Your task to perform on an android device: add a contact in the contacts app Image 0: 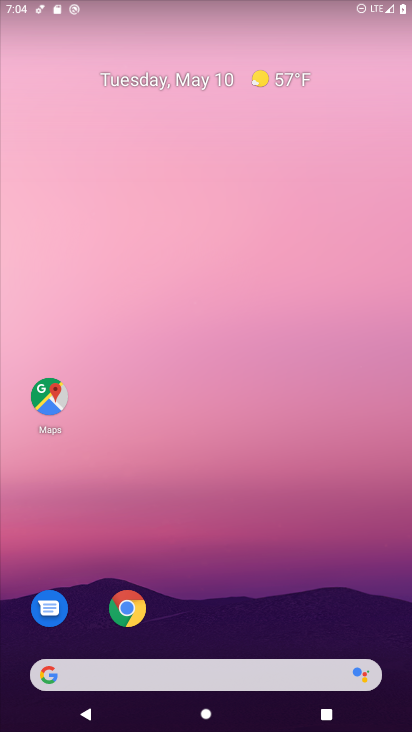
Step 0: drag from (324, 609) to (214, 77)
Your task to perform on an android device: add a contact in the contacts app Image 1: 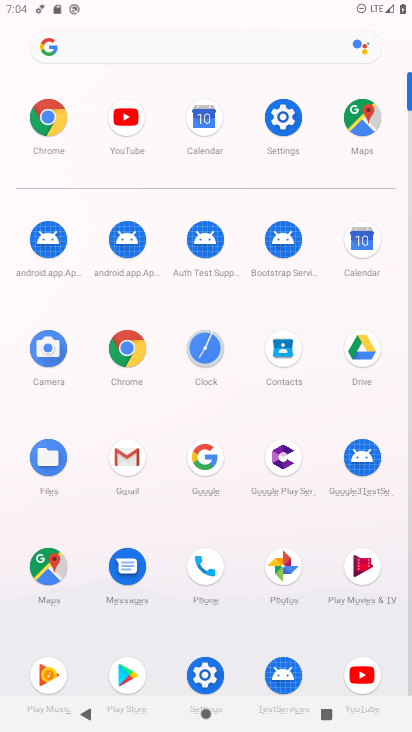
Step 1: click (289, 350)
Your task to perform on an android device: add a contact in the contacts app Image 2: 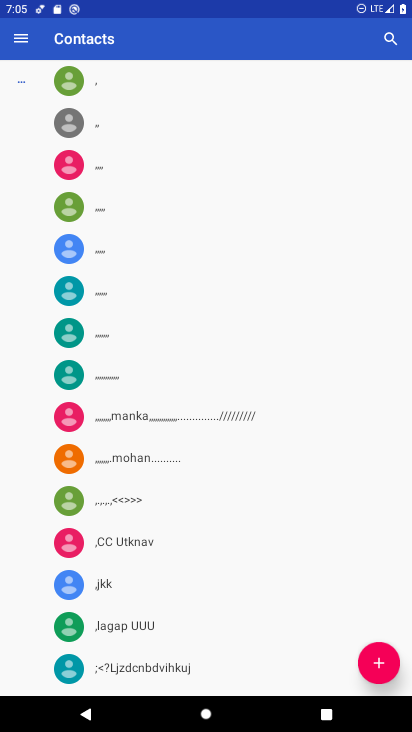
Step 2: click (389, 659)
Your task to perform on an android device: add a contact in the contacts app Image 3: 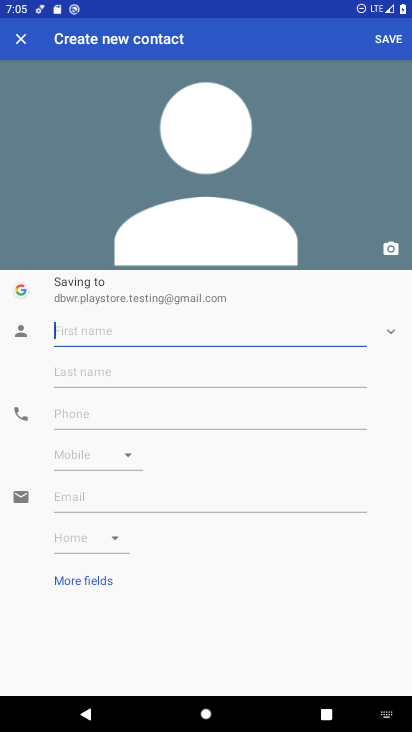
Step 3: type "mona"
Your task to perform on an android device: add a contact in the contacts app Image 4: 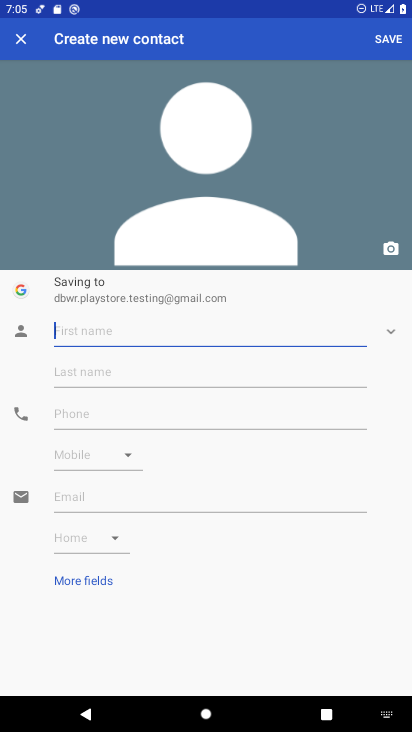
Step 4: click (385, 33)
Your task to perform on an android device: add a contact in the contacts app Image 5: 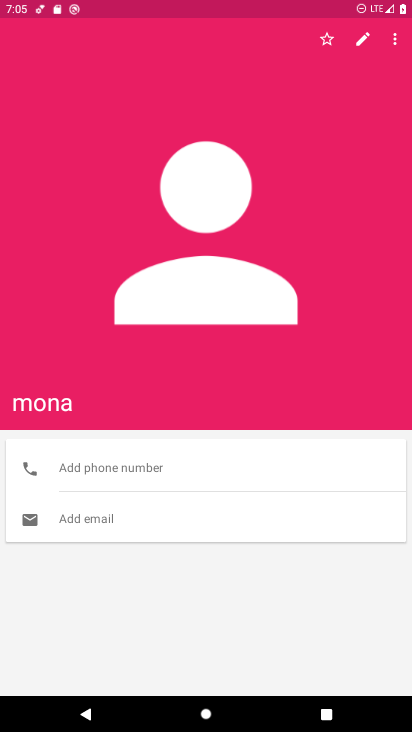
Step 5: task complete